Your task to perform on an android device: open the mobile data screen to see how much data has been used Image 0: 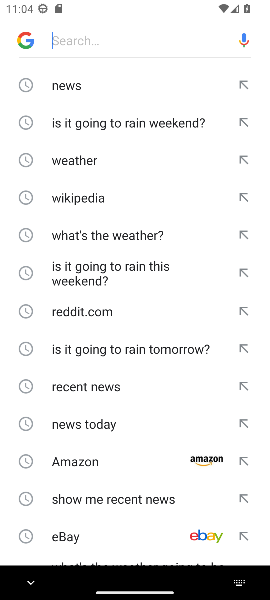
Step 0: press home button
Your task to perform on an android device: open the mobile data screen to see how much data has been used Image 1: 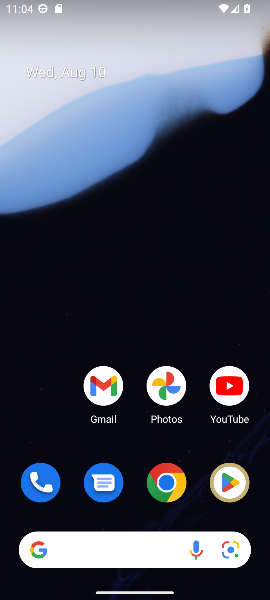
Step 1: task complete